Your task to perform on an android device: empty trash in the gmail app Image 0: 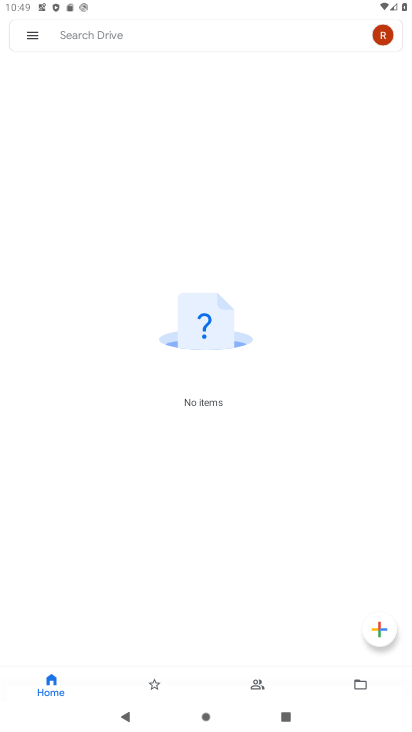
Step 0: press home button
Your task to perform on an android device: empty trash in the gmail app Image 1: 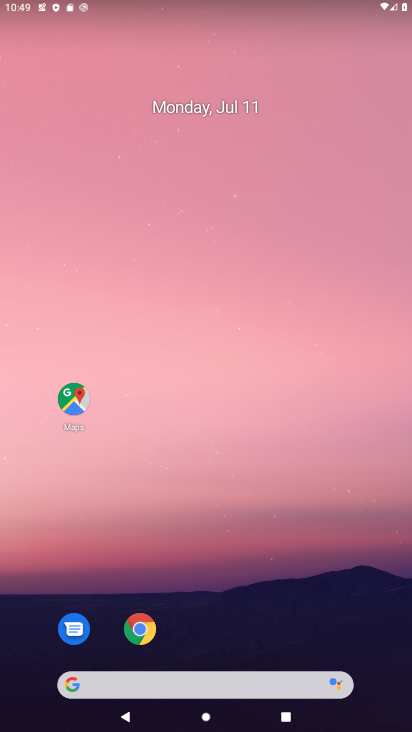
Step 1: drag from (208, 602) to (217, 172)
Your task to perform on an android device: empty trash in the gmail app Image 2: 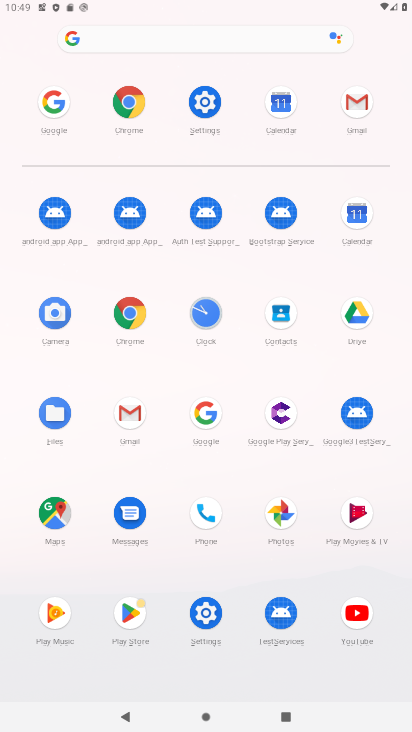
Step 2: click (348, 121)
Your task to perform on an android device: empty trash in the gmail app Image 3: 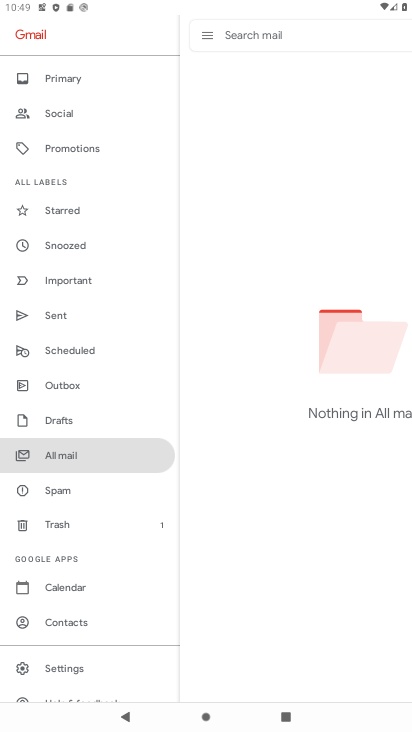
Step 3: click (81, 532)
Your task to perform on an android device: empty trash in the gmail app Image 4: 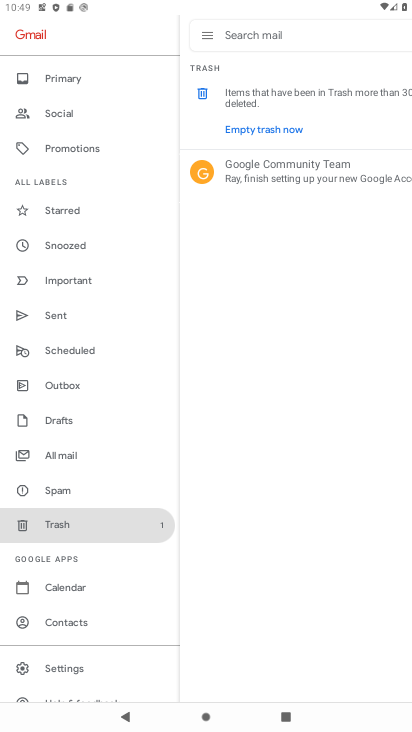
Step 4: click (277, 133)
Your task to perform on an android device: empty trash in the gmail app Image 5: 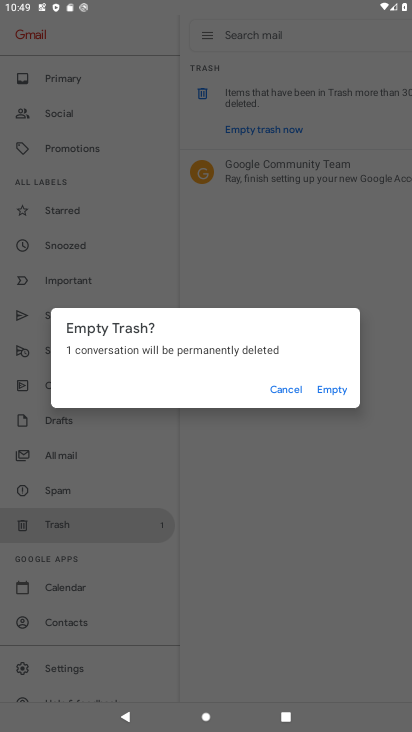
Step 5: click (322, 381)
Your task to perform on an android device: empty trash in the gmail app Image 6: 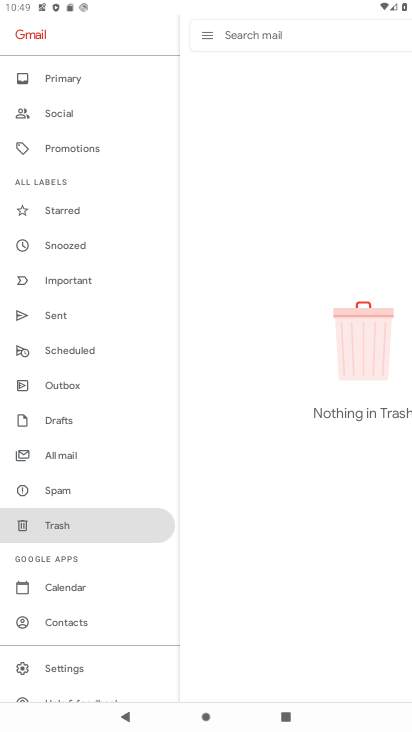
Step 6: task complete